Your task to perform on an android device: Do I have any events this weekend? Image 0: 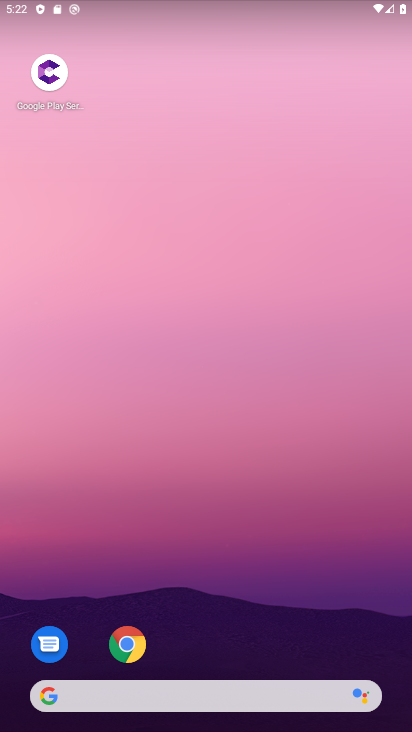
Step 0: press home button
Your task to perform on an android device: Do I have any events this weekend? Image 1: 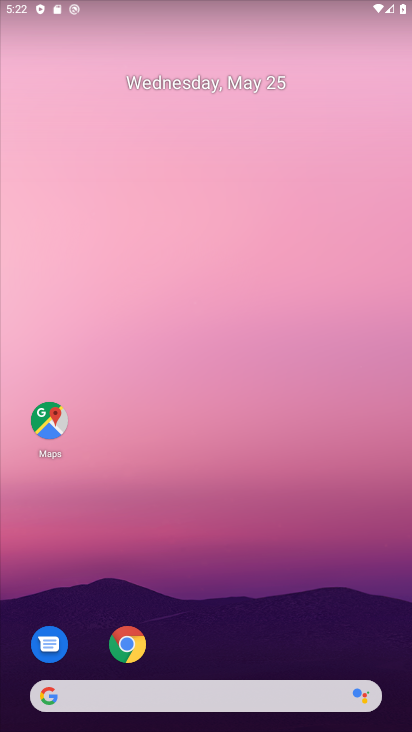
Step 1: drag from (237, 632) to (284, 118)
Your task to perform on an android device: Do I have any events this weekend? Image 2: 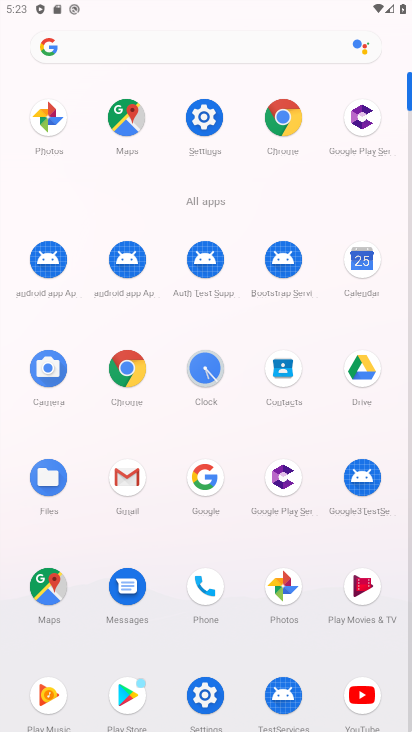
Step 2: click (349, 273)
Your task to perform on an android device: Do I have any events this weekend? Image 3: 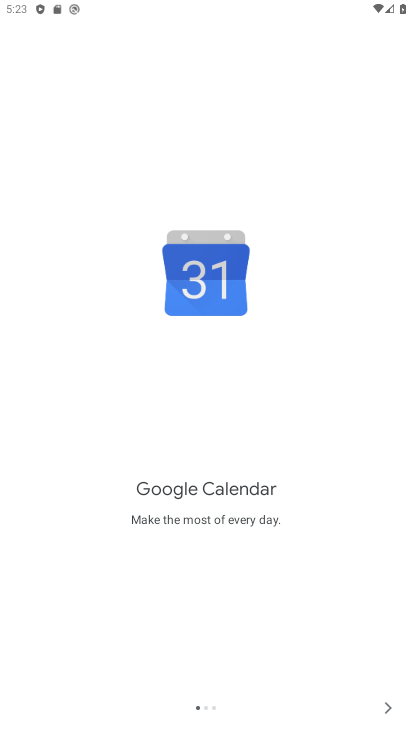
Step 3: click (390, 717)
Your task to perform on an android device: Do I have any events this weekend? Image 4: 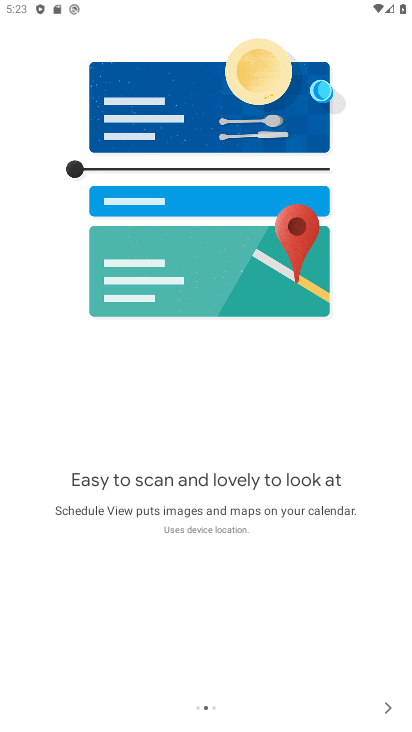
Step 4: click (390, 717)
Your task to perform on an android device: Do I have any events this weekend? Image 5: 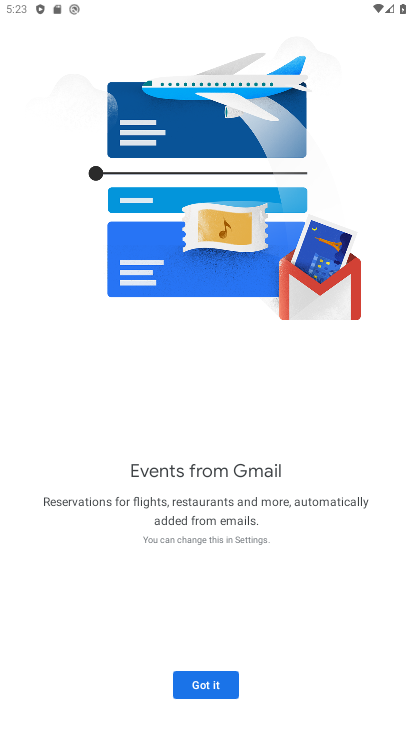
Step 5: click (200, 689)
Your task to perform on an android device: Do I have any events this weekend? Image 6: 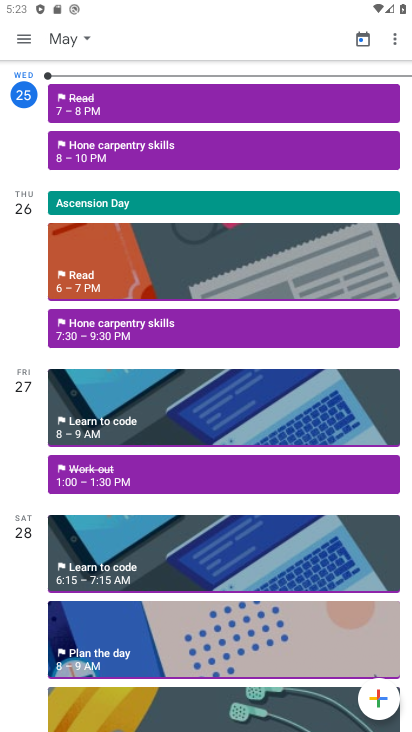
Step 6: click (85, 40)
Your task to perform on an android device: Do I have any events this weekend? Image 7: 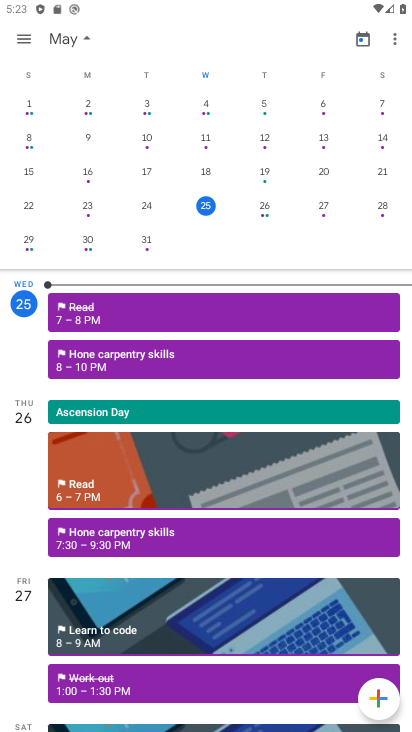
Step 7: click (85, 40)
Your task to perform on an android device: Do I have any events this weekend? Image 8: 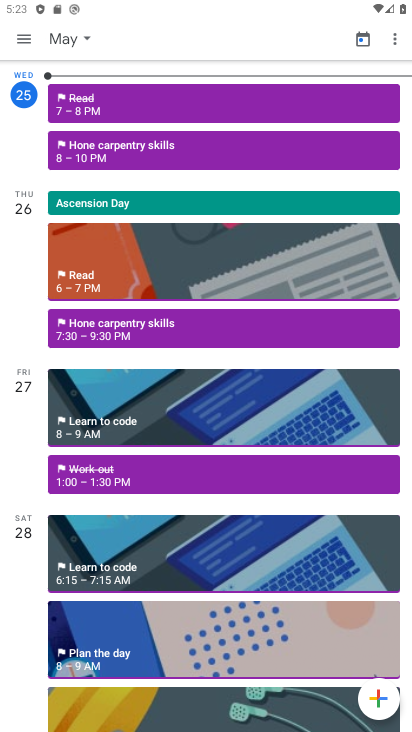
Step 8: task complete